Your task to perform on an android device: open a new tab in the chrome app Image 0: 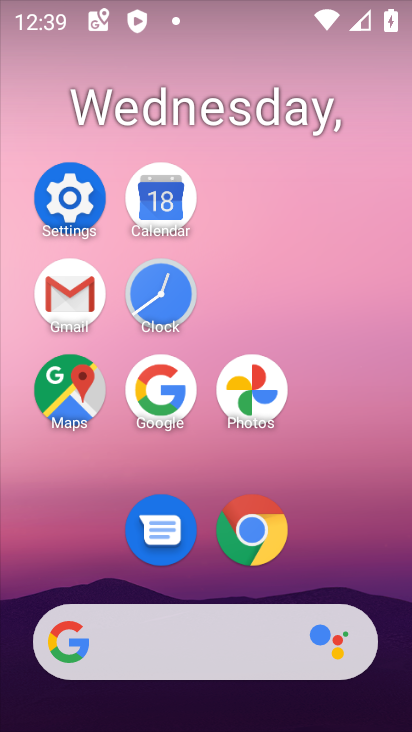
Step 0: click (253, 549)
Your task to perform on an android device: open a new tab in the chrome app Image 1: 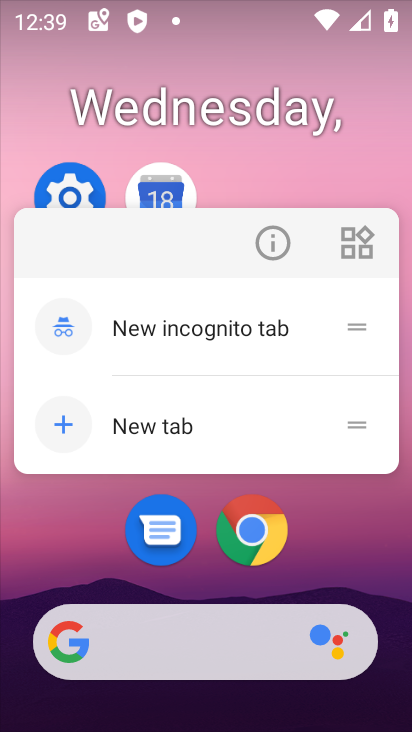
Step 1: click (253, 549)
Your task to perform on an android device: open a new tab in the chrome app Image 2: 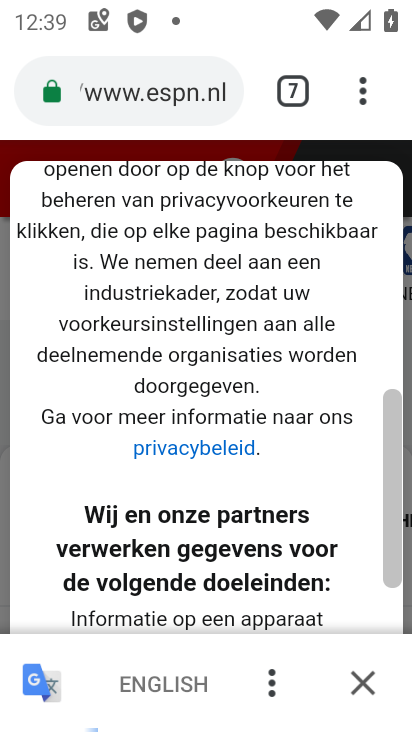
Step 2: click (272, 98)
Your task to perform on an android device: open a new tab in the chrome app Image 3: 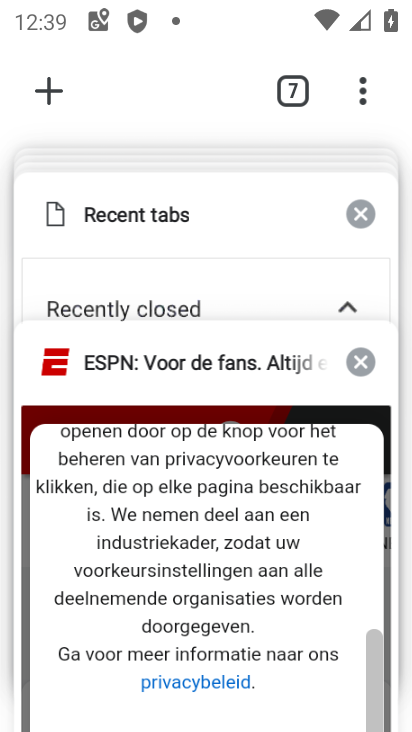
Step 3: click (41, 79)
Your task to perform on an android device: open a new tab in the chrome app Image 4: 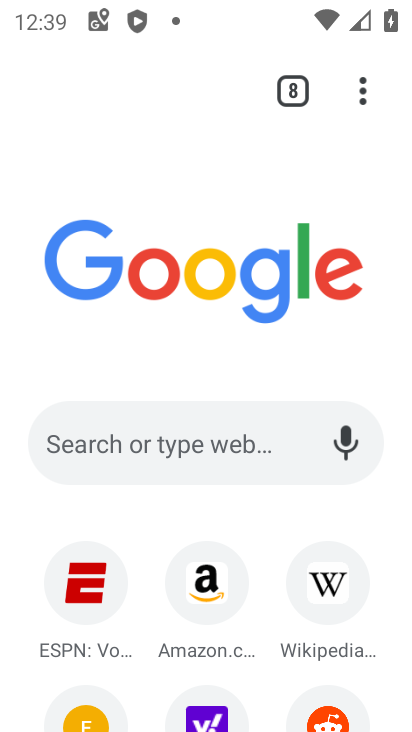
Step 4: task complete